Your task to perform on an android device: Open Google Image 0: 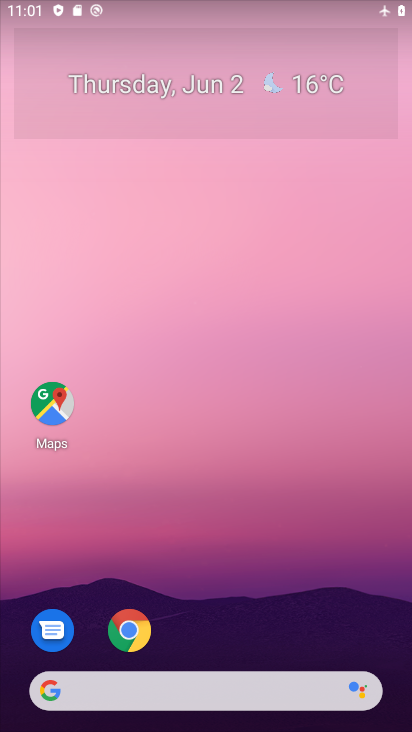
Step 0: click (62, 691)
Your task to perform on an android device: Open Google Image 1: 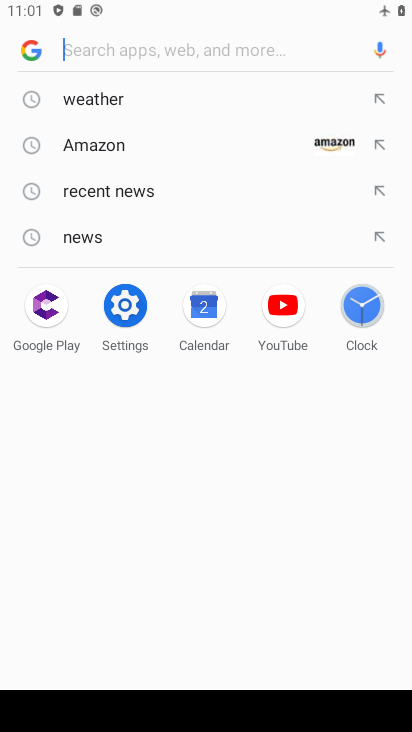
Step 1: click (32, 48)
Your task to perform on an android device: Open Google Image 2: 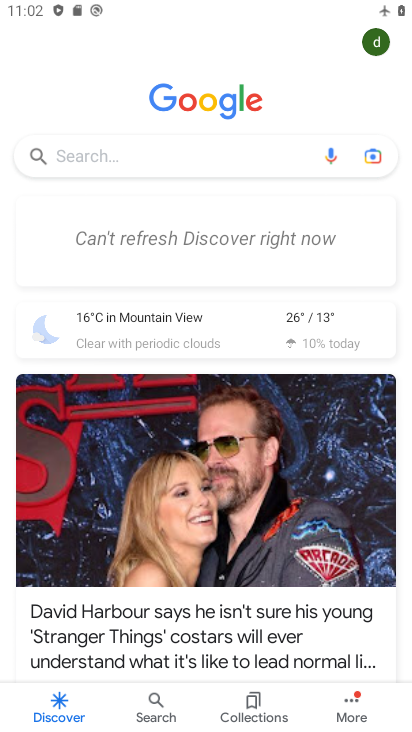
Step 2: task complete